Your task to perform on an android device: turn on wifi Image 0: 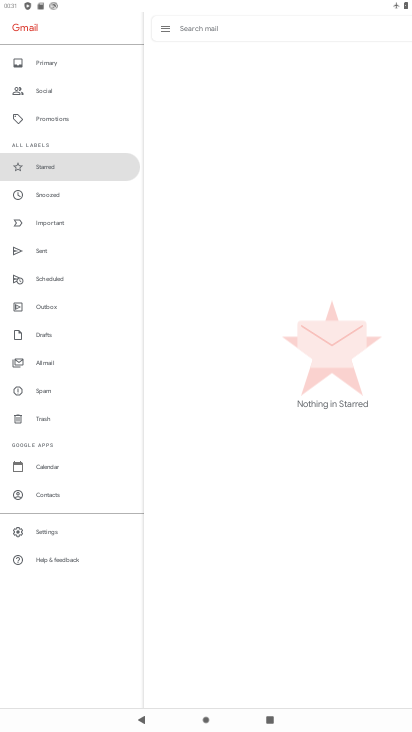
Step 0: press home button
Your task to perform on an android device: turn on wifi Image 1: 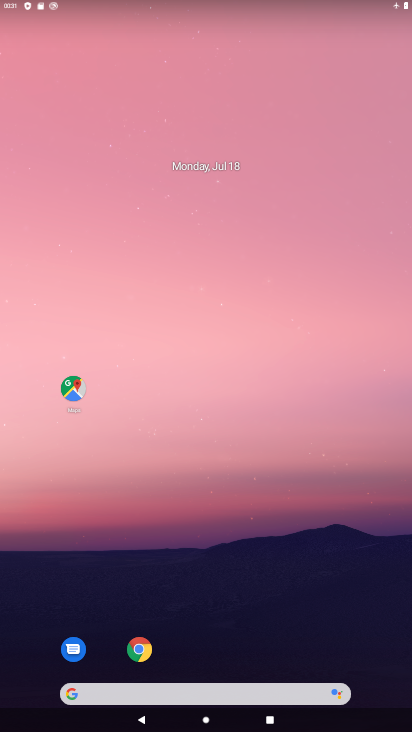
Step 1: drag from (195, 496) to (195, 142)
Your task to perform on an android device: turn on wifi Image 2: 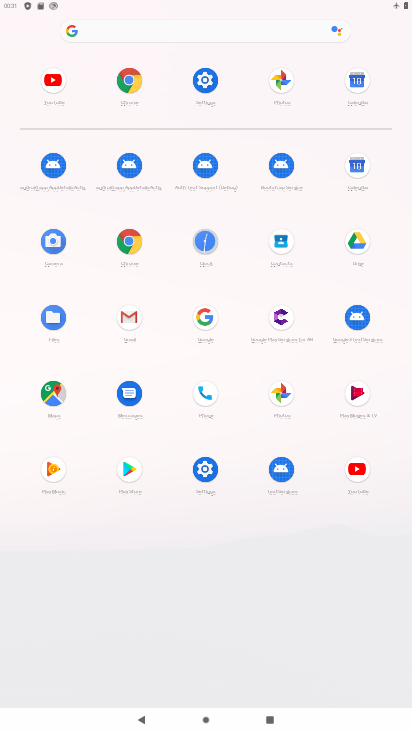
Step 2: click (198, 83)
Your task to perform on an android device: turn on wifi Image 3: 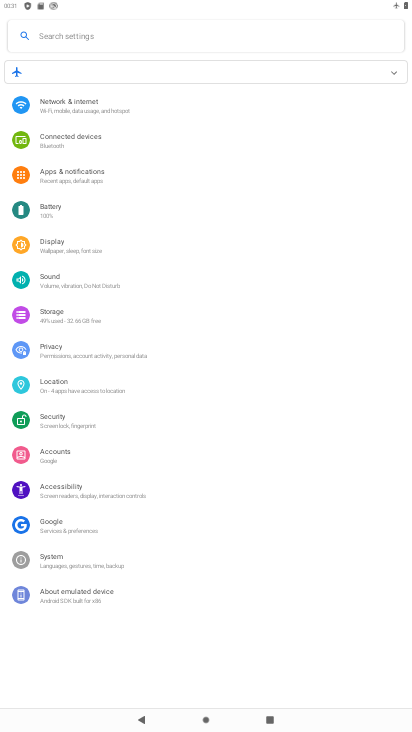
Step 3: click (55, 105)
Your task to perform on an android device: turn on wifi Image 4: 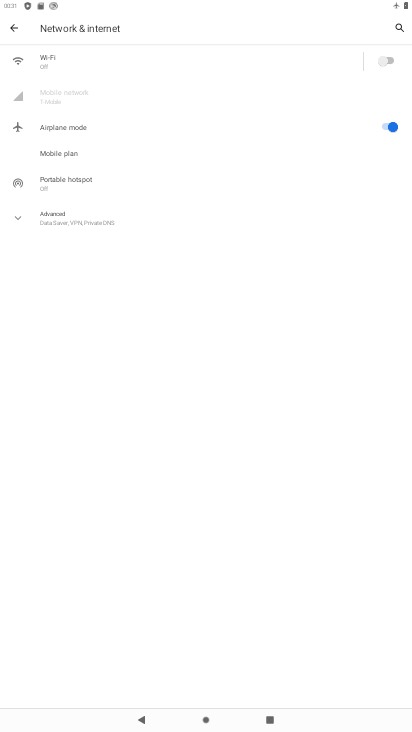
Step 4: click (384, 56)
Your task to perform on an android device: turn on wifi Image 5: 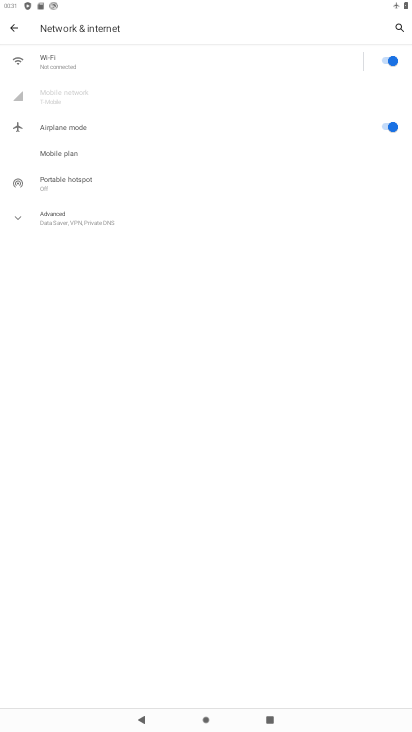
Step 5: task complete